Your task to perform on an android device: Show me popular games on the Play Store Image 0: 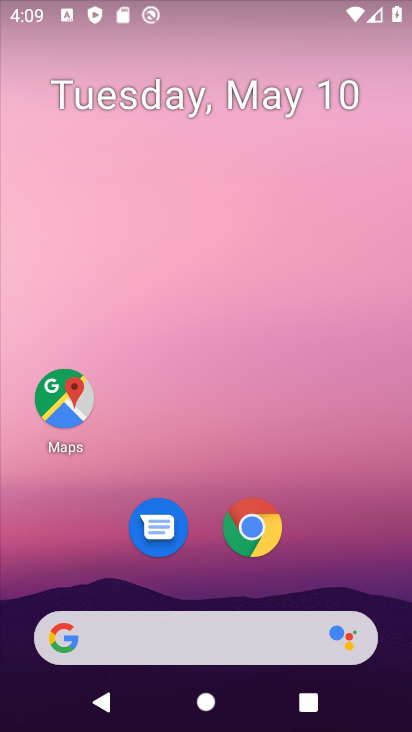
Step 0: drag from (287, 482) to (211, 51)
Your task to perform on an android device: Show me popular games on the Play Store Image 1: 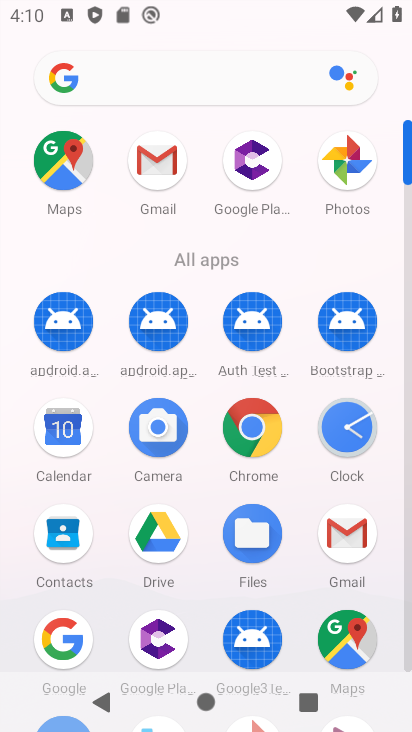
Step 1: drag from (195, 579) to (200, 166)
Your task to perform on an android device: Show me popular games on the Play Store Image 2: 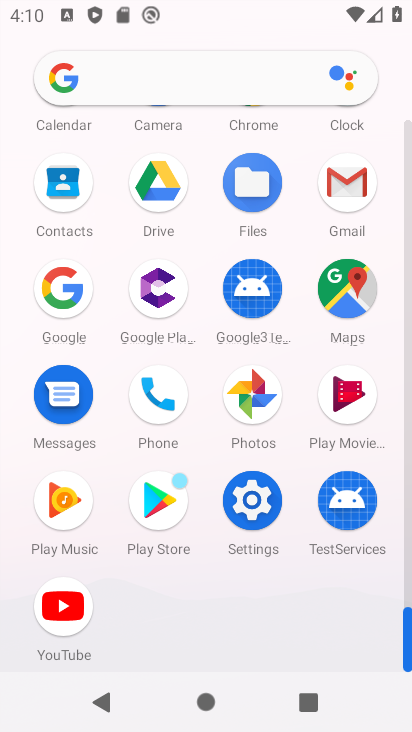
Step 2: click (151, 483)
Your task to perform on an android device: Show me popular games on the Play Store Image 3: 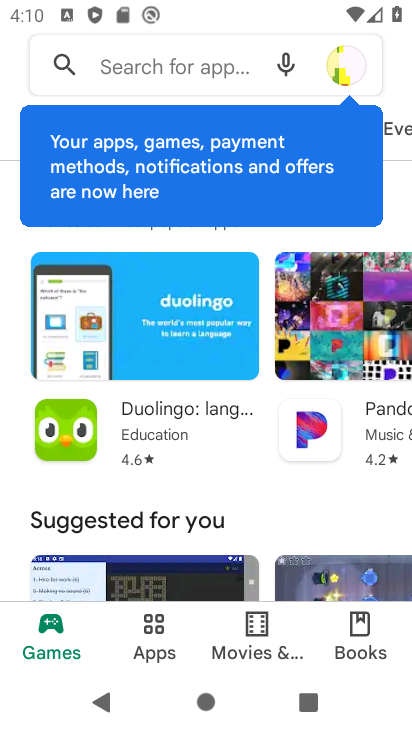
Step 3: drag from (286, 519) to (257, 64)
Your task to perform on an android device: Show me popular games on the Play Store Image 4: 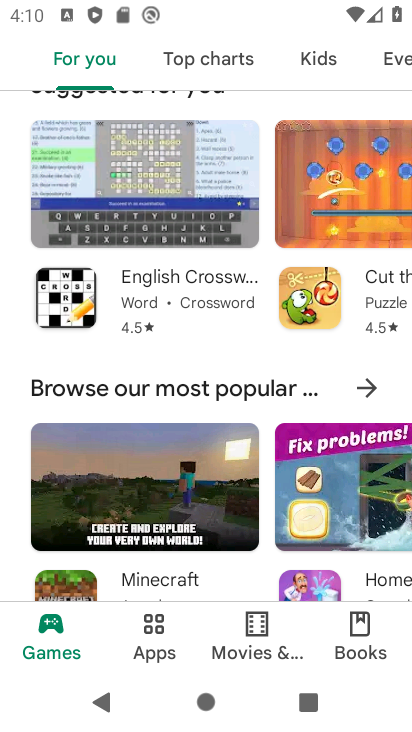
Step 4: click (371, 384)
Your task to perform on an android device: Show me popular games on the Play Store Image 5: 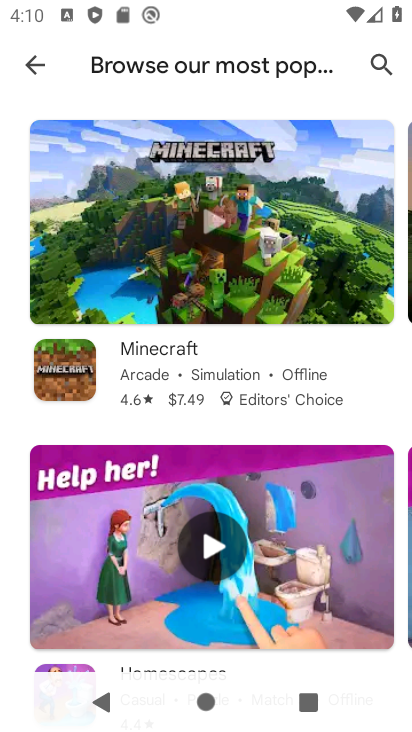
Step 5: task complete